Your task to perform on an android device: Open calendar and show me the first week of next month Image 0: 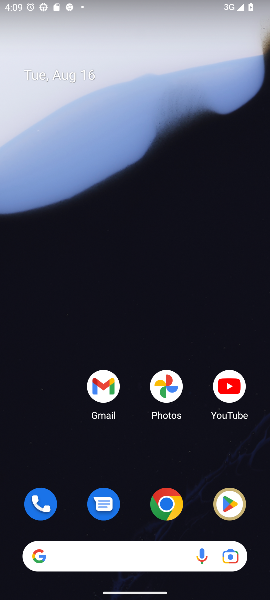
Step 0: drag from (133, 500) to (56, 46)
Your task to perform on an android device: Open calendar and show me the first week of next month Image 1: 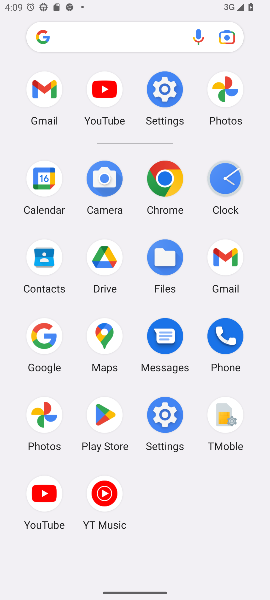
Step 1: click (38, 179)
Your task to perform on an android device: Open calendar and show me the first week of next month Image 2: 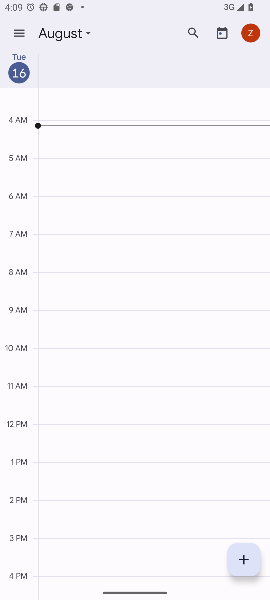
Step 2: click (17, 28)
Your task to perform on an android device: Open calendar and show me the first week of next month Image 3: 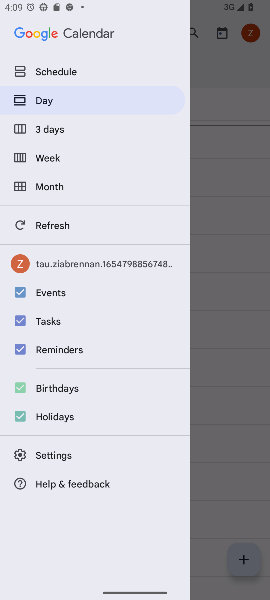
Step 3: click (50, 156)
Your task to perform on an android device: Open calendar and show me the first week of next month Image 4: 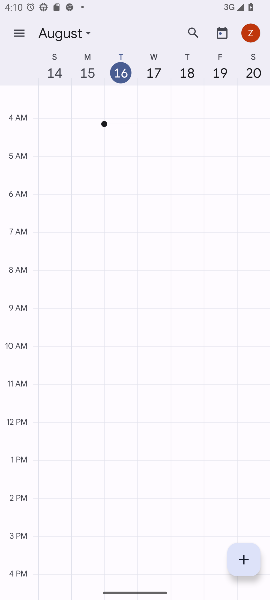
Step 4: click (86, 29)
Your task to perform on an android device: Open calendar and show me the first week of next month Image 5: 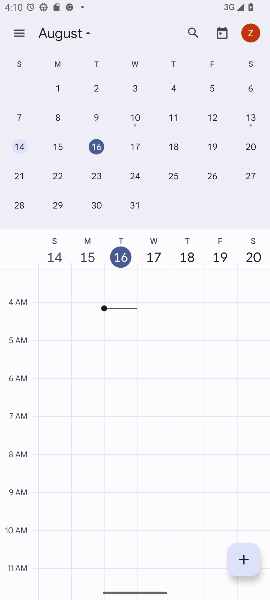
Step 5: drag from (250, 151) to (13, 113)
Your task to perform on an android device: Open calendar and show me the first week of next month Image 6: 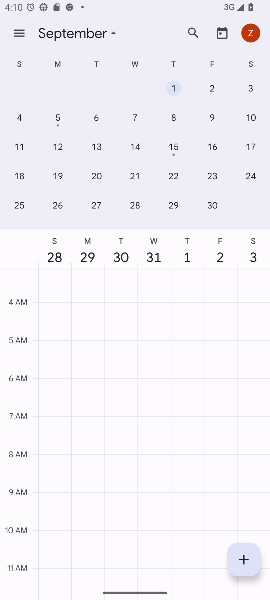
Step 6: click (174, 89)
Your task to perform on an android device: Open calendar and show me the first week of next month Image 7: 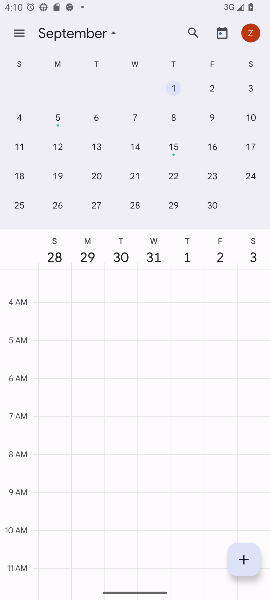
Step 7: task complete